Your task to perform on an android device: Open calendar and show me the first week of next month Image 0: 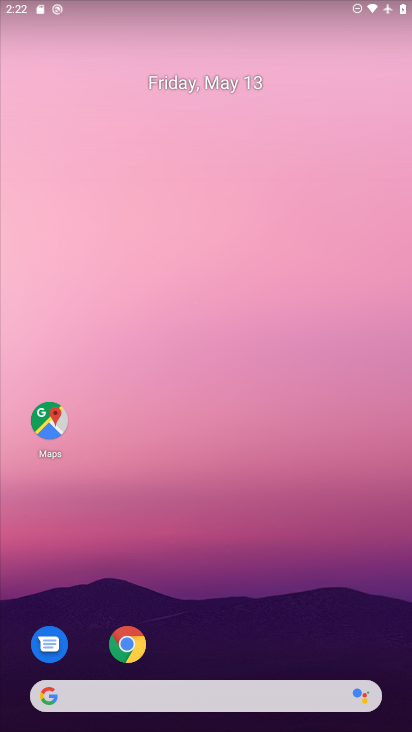
Step 0: drag from (349, 645) to (237, 72)
Your task to perform on an android device: Open calendar and show me the first week of next month Image 1: 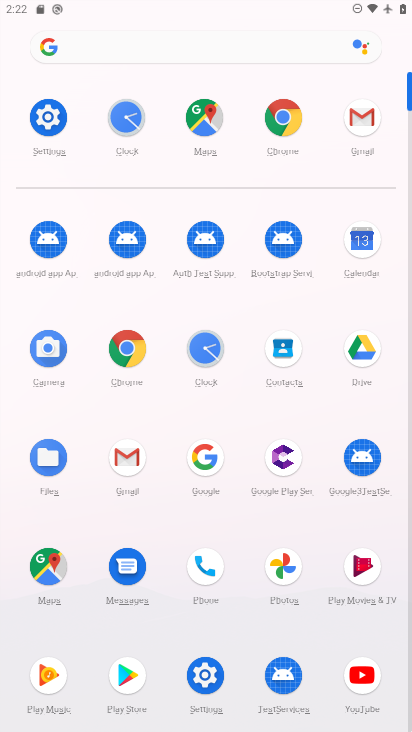
Step 1: click (359, 238)
Your task to perform on an android device: Open calendar and show me the first week of next month Image 2: 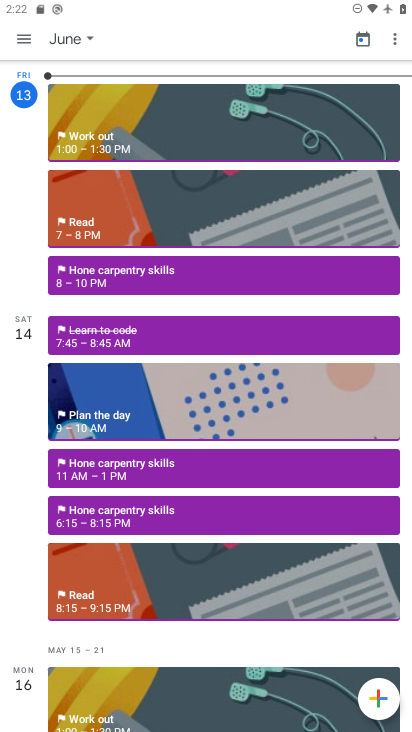
Step 2: click (66, 34)
Your task to perform on an android device: Open calendar and show me the first week of next month Image 3: 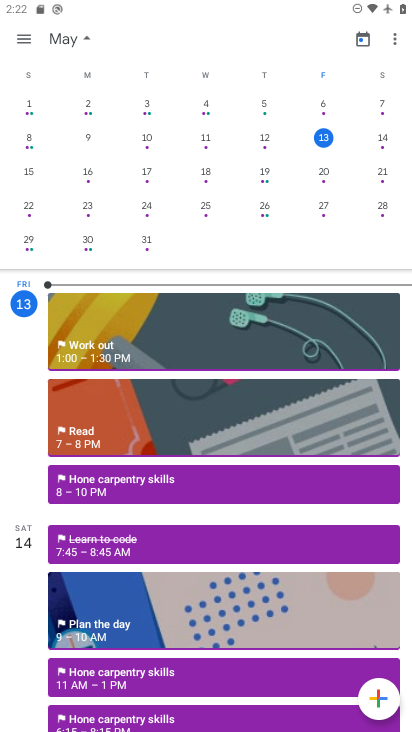
Step 3: drag from (372, 184) to (18, 176)
Your task to perform on an android device: Open calendar and show me the first week of next month Image 4: 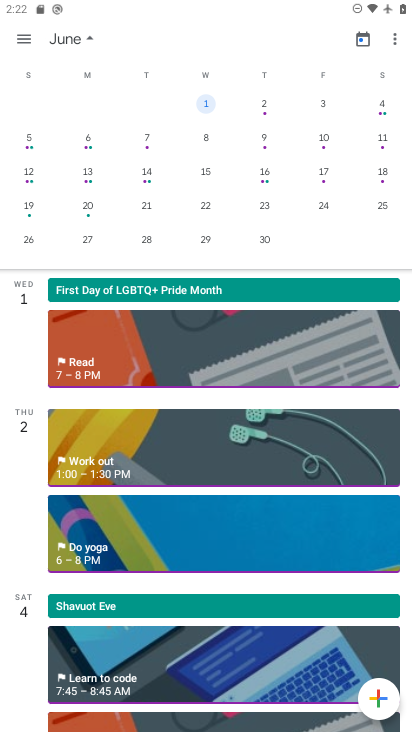
Step 4: click (83, 140)
Your task to perform on an android device: Open calendar and show me the first week of next month Image 5: 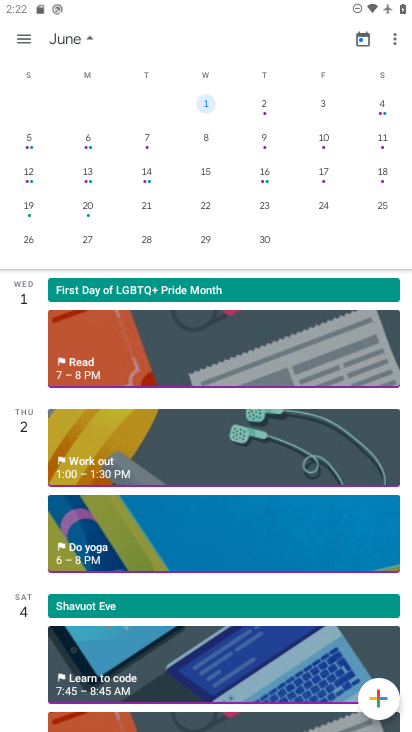
Step 5: click (85, 140)
Your task to perform on an android device: Open calendar and show me the first week of next month Image 6: 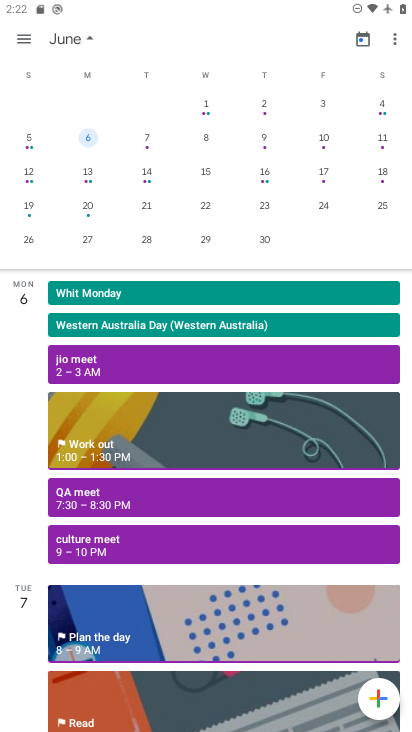
Step 6: task complete